Your task to perform on an android device: Clear the shopping cart on amazon.com. Image 0: 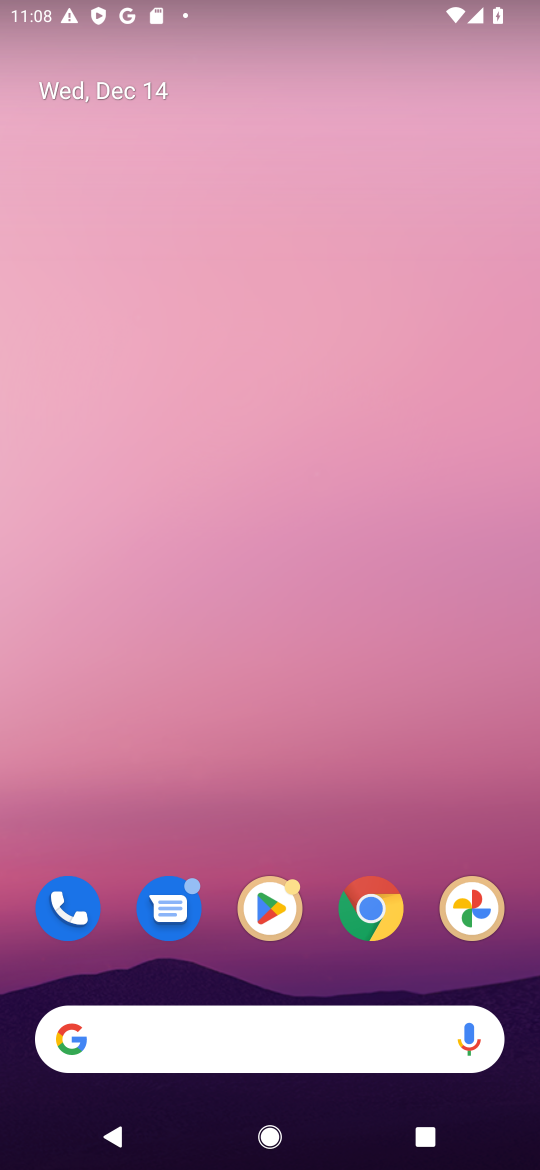
Step 0: click (291, 1047)
Your task to perform on an android device: Clear the shopping cart on amazon.com. Image 1: 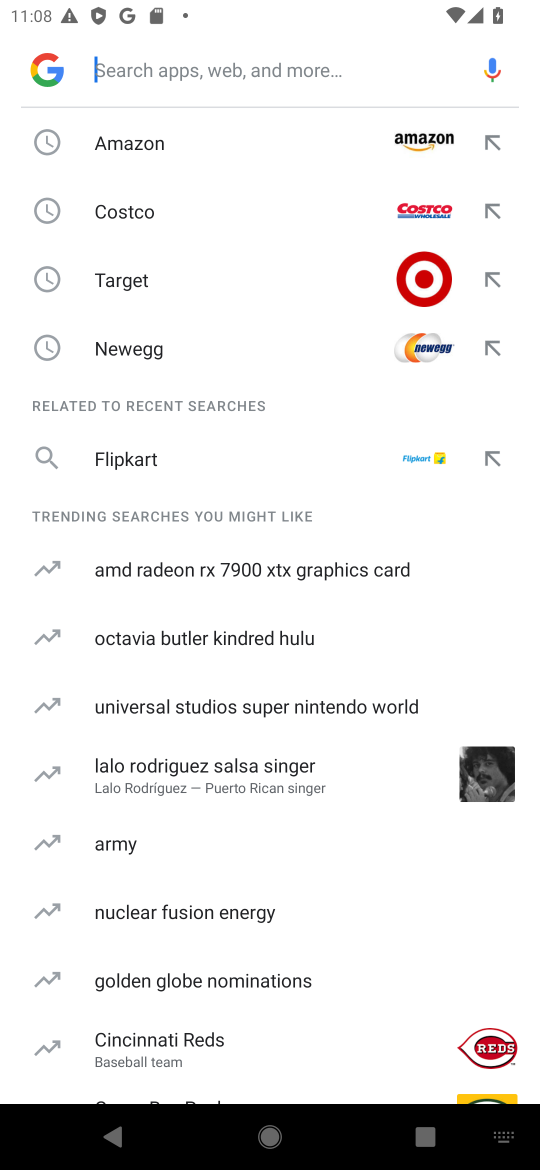
Step 1: click (134, 148)
Your task to perform on an android device: Clear the shopping cart on amazon.com. Image 2: 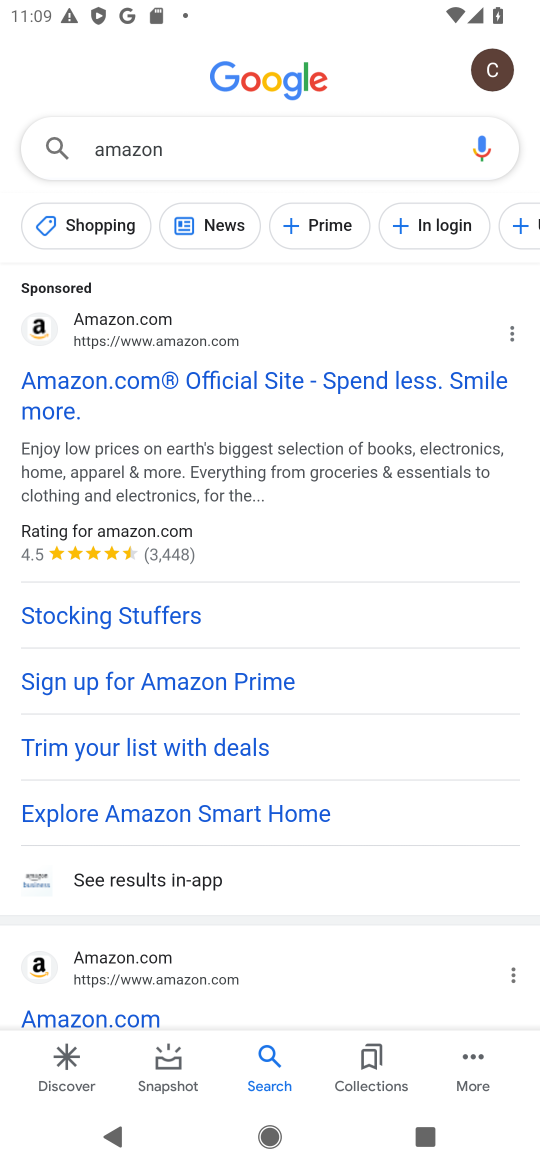
Step 2: click (53, 420)
Your task to perform on an android device: Clear the shopping cart on amazon.com. Image 3: 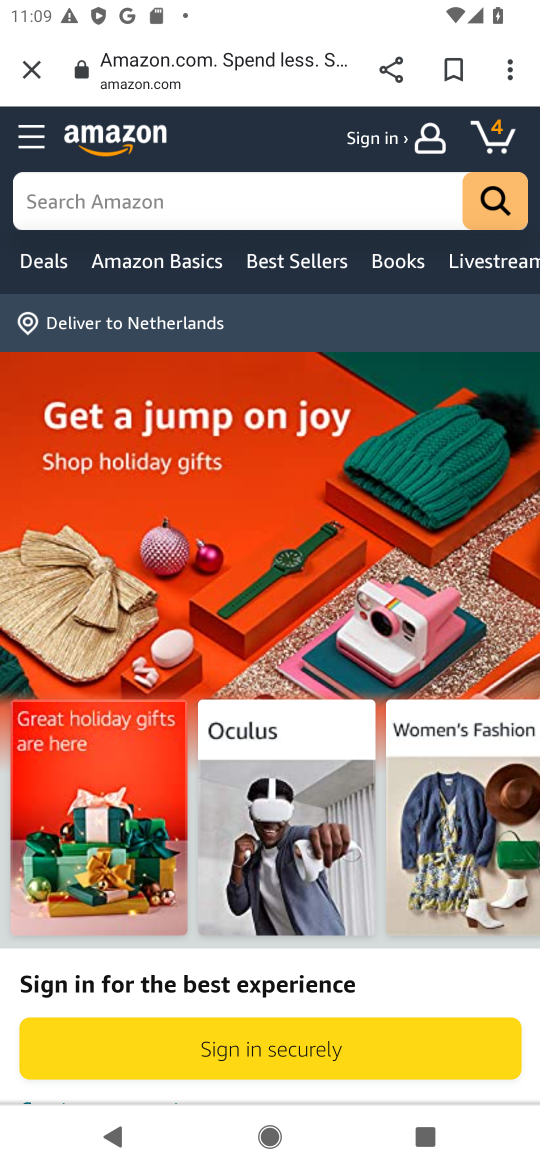
Step 3: click (96, 188)
Your task to perform on an android device: Clear the shopping cart on amazon.com. Image 4: 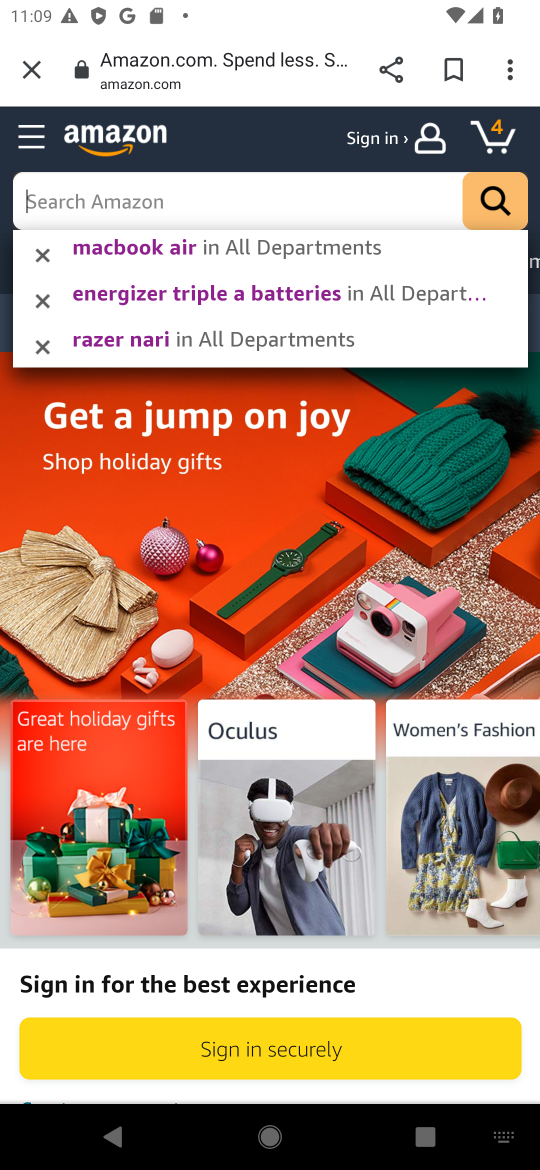
Step 4: click (486, 126)
Your task to perform on an android device: Clear the shopping cart on amazon.com. Image 5: 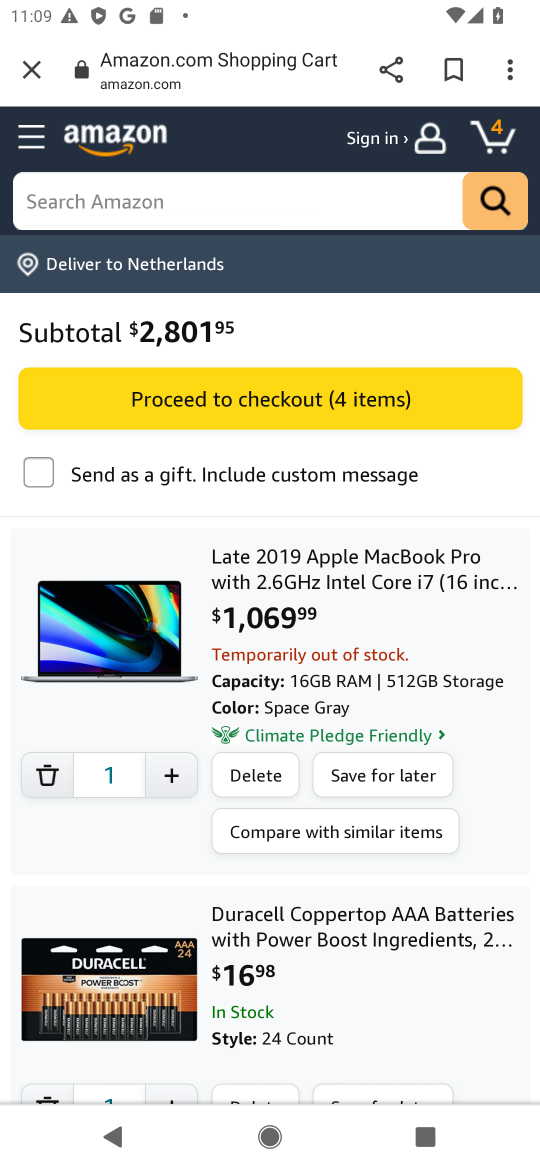
Step 5: click (250, 780)
Your task to perform on an android device: Clear the shopping cart on amazon.com. Image 6: 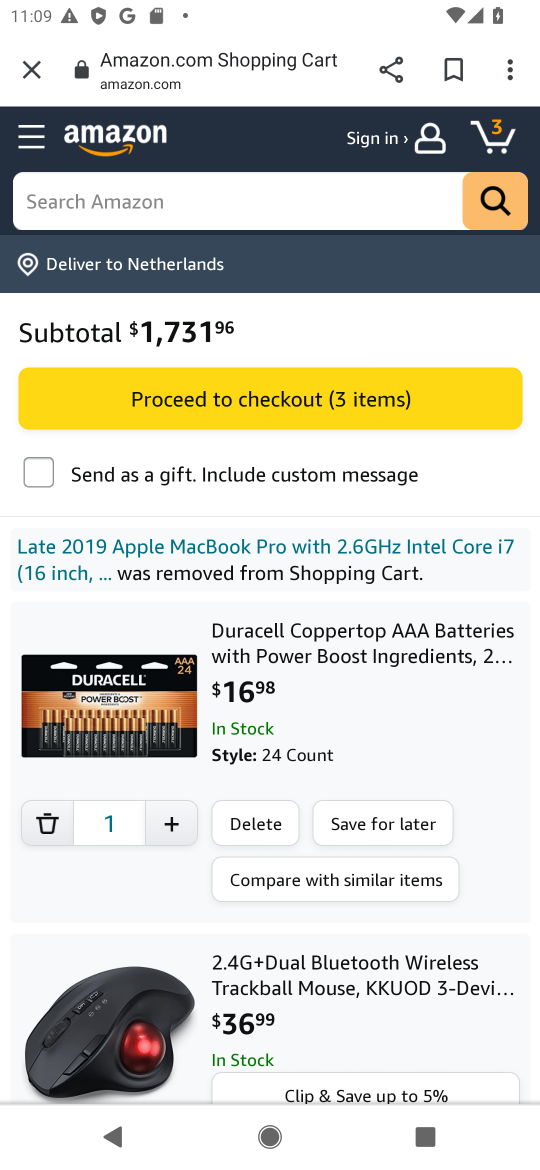
Step 6: click (244, 831)
Your task to perform on an android device: Clear the shopping cart on amazon.com. Image 7: 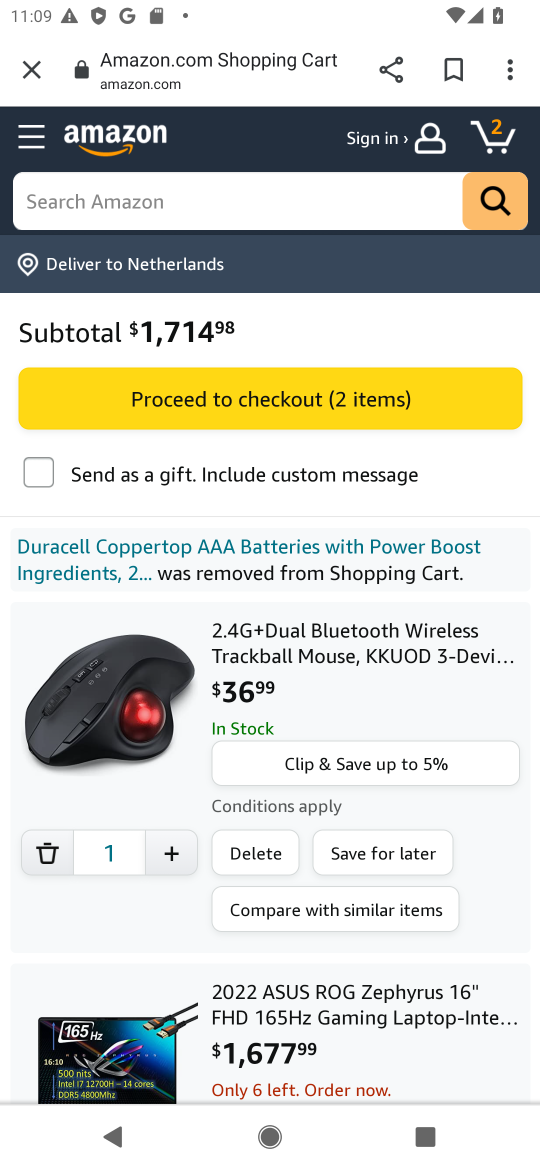
Step 7: click (244, 831)
Your task to perform on an android device: Clear the shopping cart on amazon.com. Image 8: 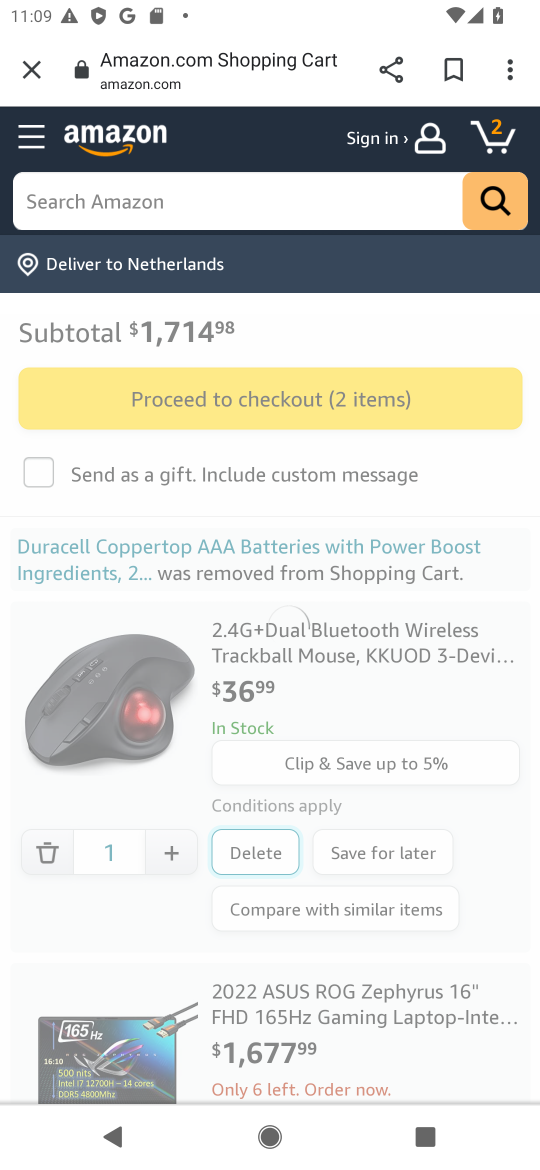
Step 8: click (234, 854)
Your task to perform on an android device: Clear the shopping cart on amazon.com. Image 9: 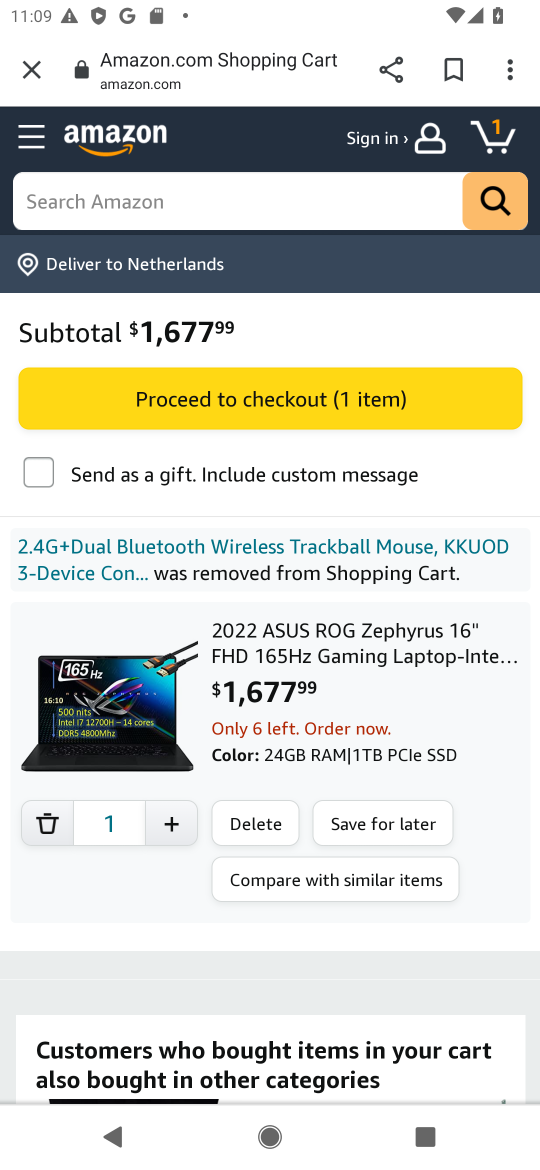
Step 9: click (245, 835)
Your task to perform on an android device: Clear the shopping cart on amazon.com. Image 10: 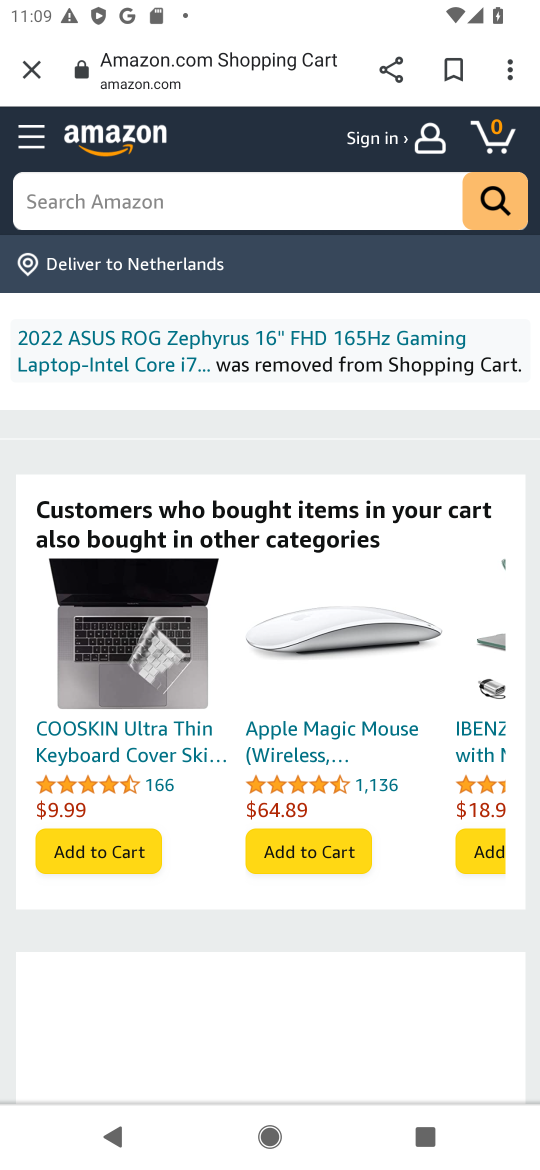
Step 10: task complete